Your task to perform on an android device: delete a single message in the gmail app Image 0: 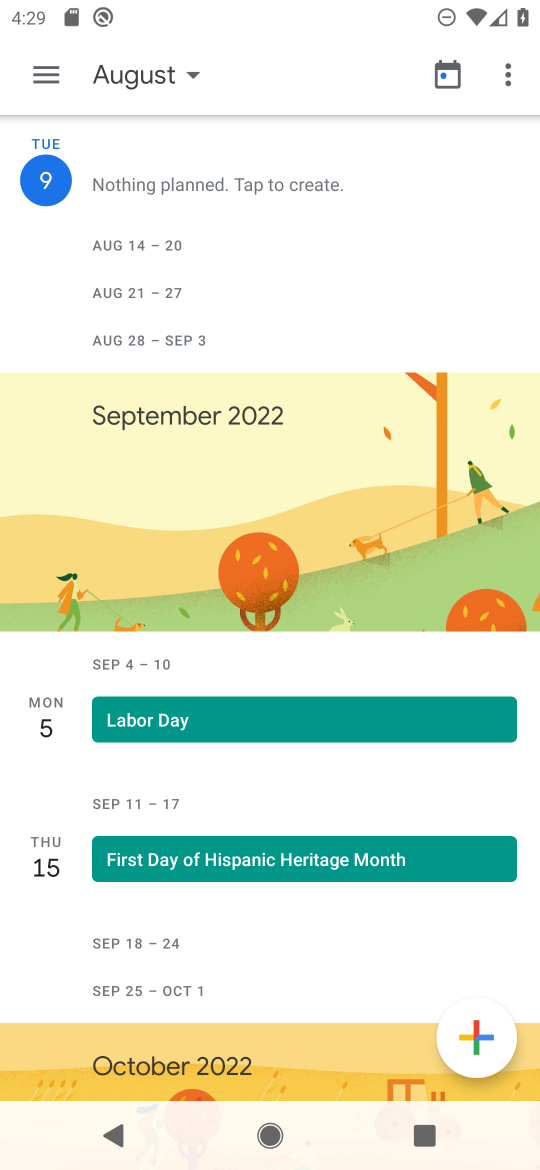
Step 0: press back button
Your task to perform on an android device: delete a single message in the gmail app Image 1: 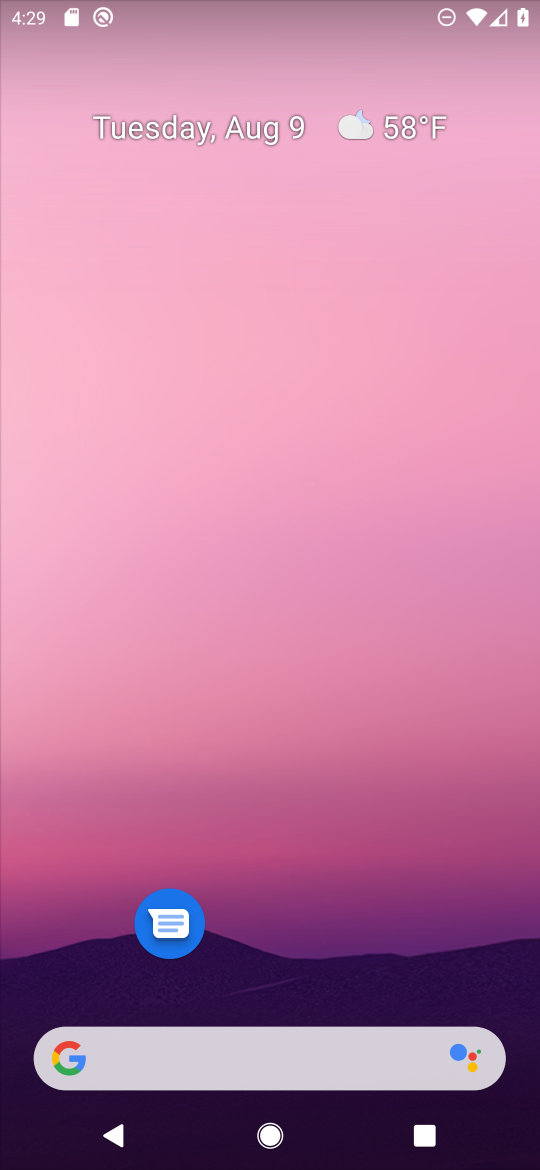
Step 1: drag from (264, 923) to (443, 35)
Your task to perform on an android device: delete a single message in the gmail app Image 2: 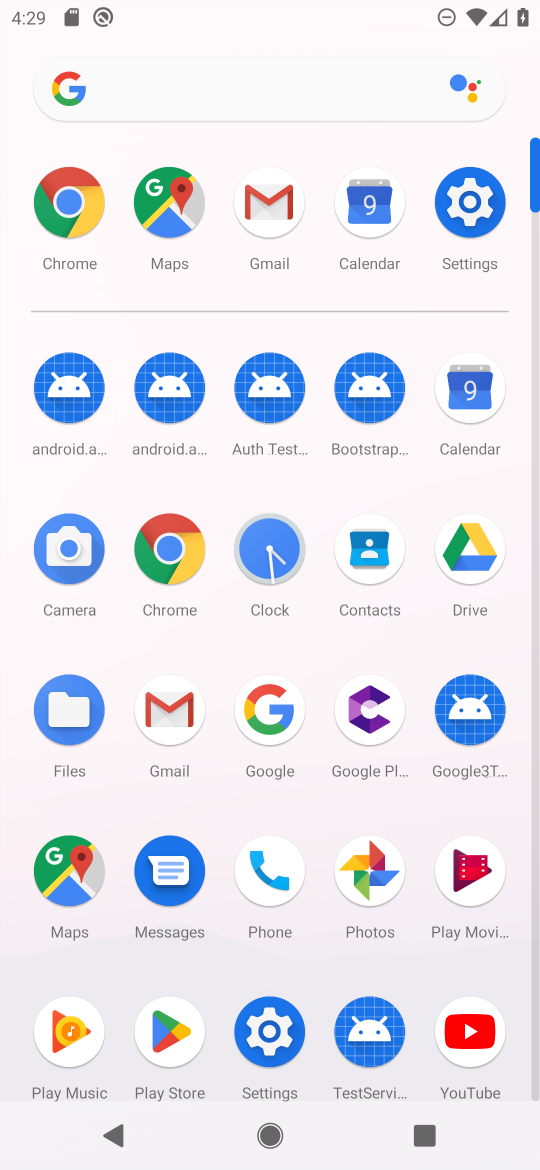
Step 2: click (269, 200)
Your task to perform on an android device: delete a single message in the gmail app Image 3: 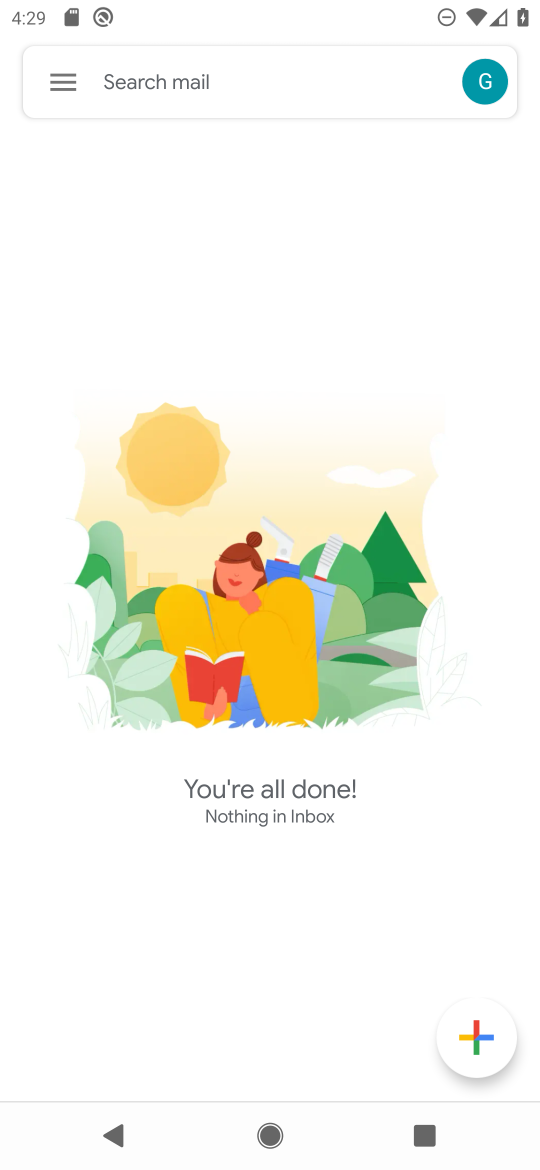
Step 3: click (59, 80)
Your task to perform on an android device: delete a single message in the gmail app Image 4: 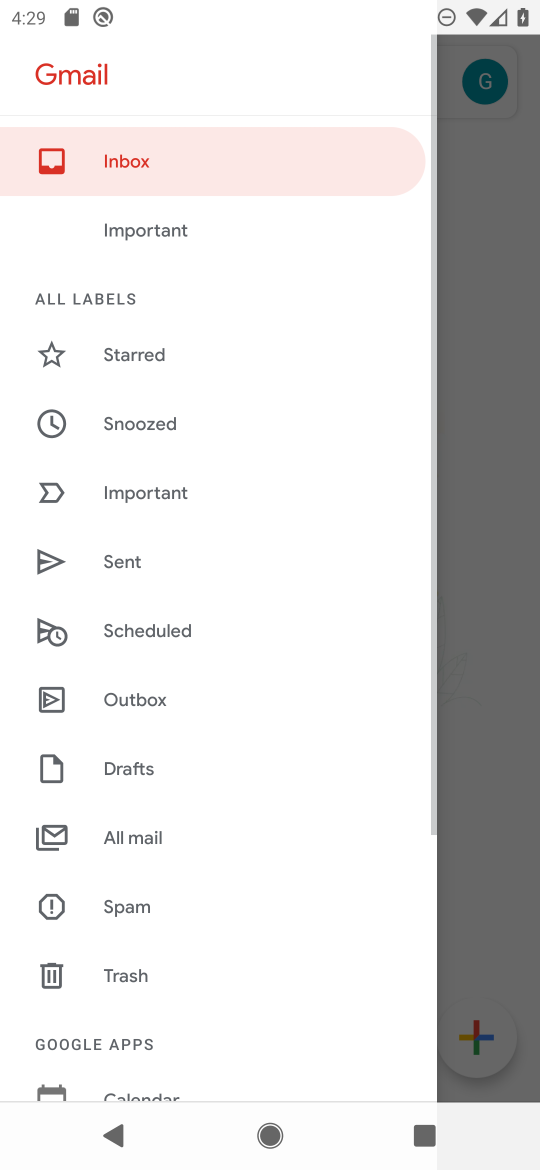
Step 4: click (167, 843)
Your task to perform on an android device: delete a single message in the gmail app Image 5: 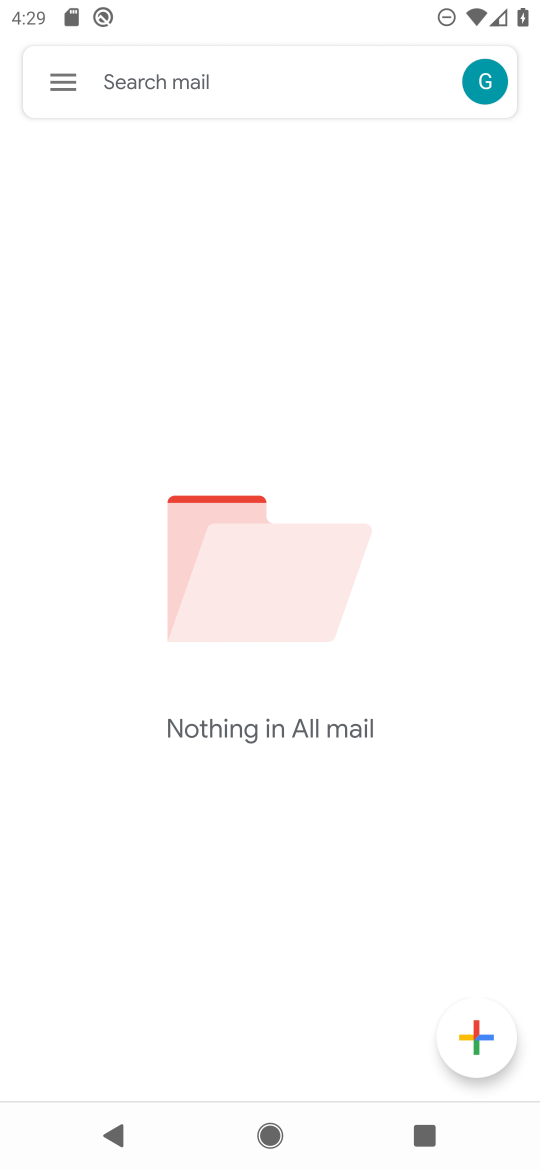
Step 5: task complete